Your task to perform on an android device: Open Chrome and go to the settings page Image 0: 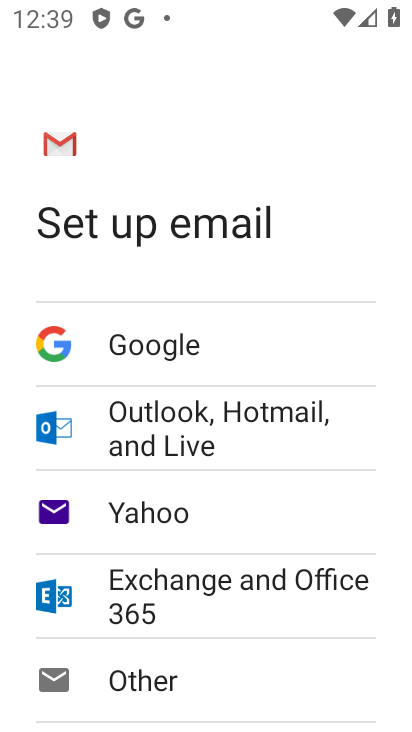
Step 0: press home button
Your task to perform on an android device: Open Chrome and go to the settings page Image 1: 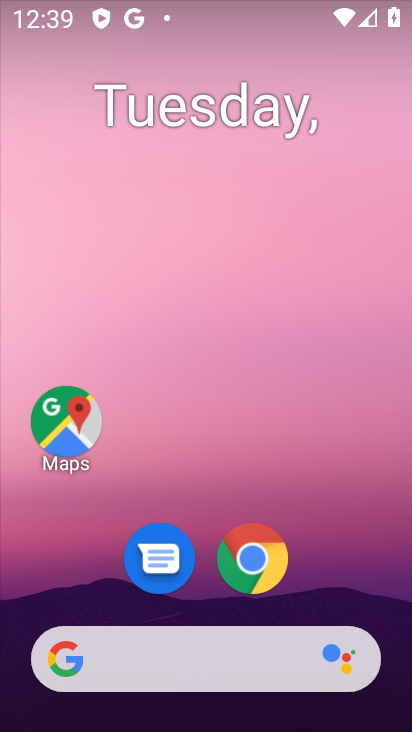
Step 1: drag from (402, 440) to (407, 402)
Your task to perform on an android device: Open Chrome and go to the settings page Image 2: 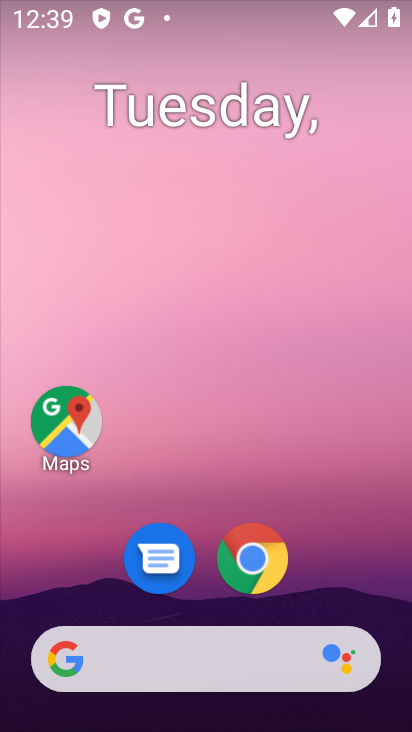
Step 2: drag from (332, 568) to (352, 203)
Your task to perform on an android device: Open Chrome and go to the settings page Image 3: 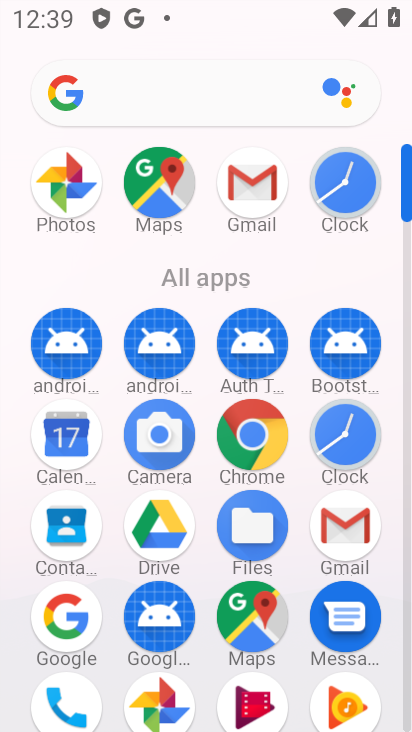
Step 3: click (243, 450)
Your task to perform on an android device: Open Chrome and go to the settings page Image 4: 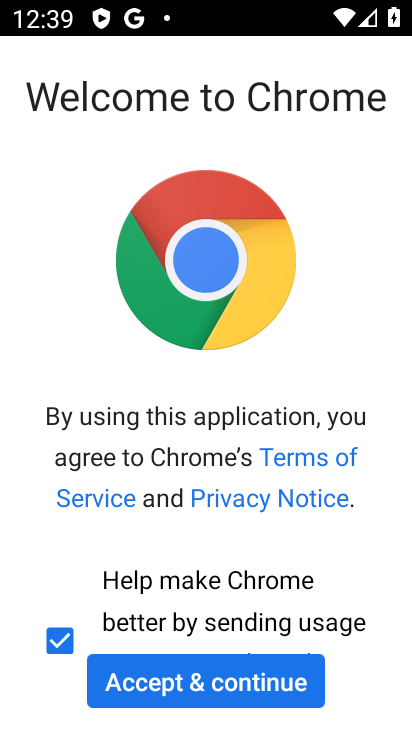
Step 4: click (262, 688)
Your task to perform on an android device: Open Chrome and go to the settings page Image 5: 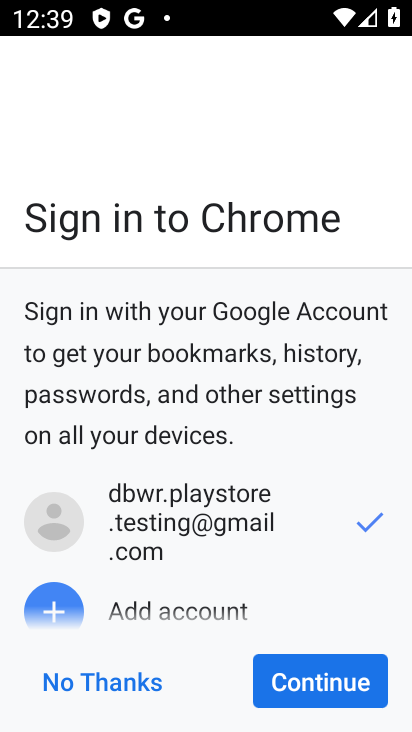
Step 5: click (337, 697)
Your task to perform on an android device: Open Chrome and go to the settings page Image 6: 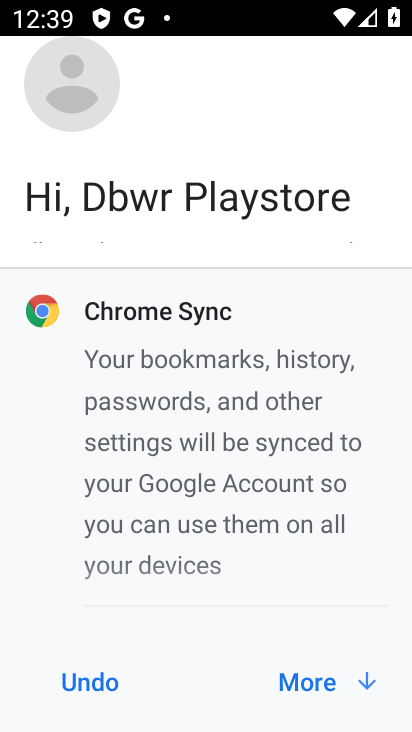
Step 6: click (323, 686)
Your task to perform on an android device: Open Chrome and go to the settings page Image 7: 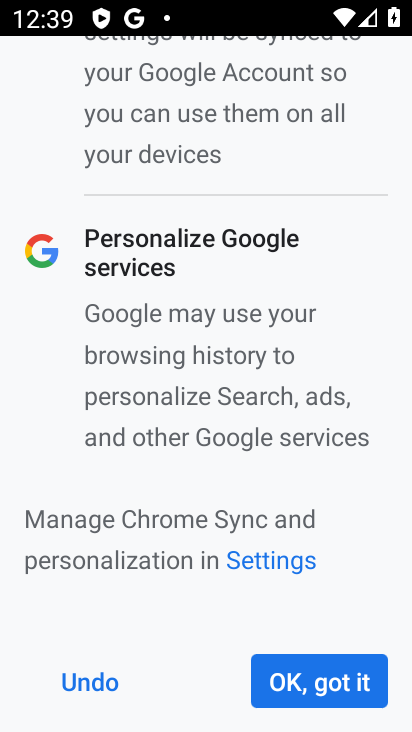
Step 7: click (323, 686)
Your task to perform on an android device: Open Chrome and go to the settings page Image 8: 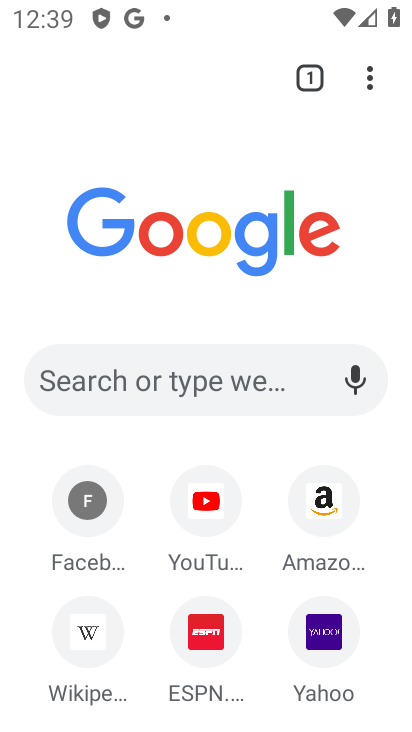
Step 8: click (369, 83)
Your task to perform on an android device: Open Chrome and go to the settings page Image 9: 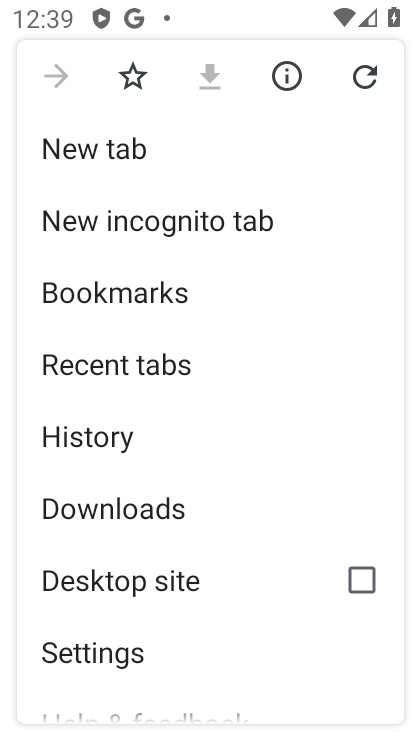
Step 9: click (140, 662)
Your task to perform on an android device: Open Chrome and go to the settings page Image 10: 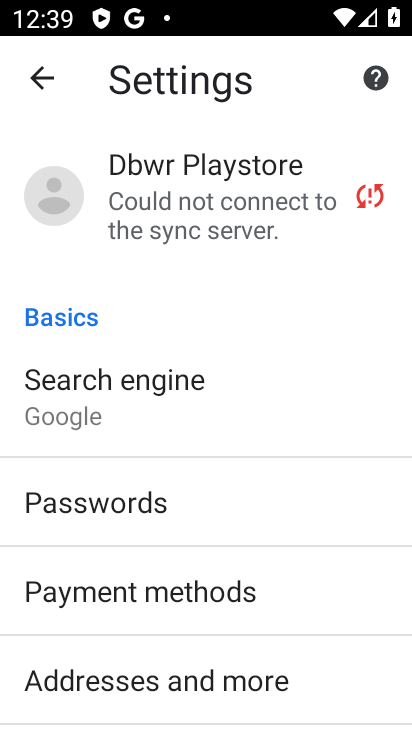
Step 10: task complete